Your task to perform on an android device: turn on location history Image 0: 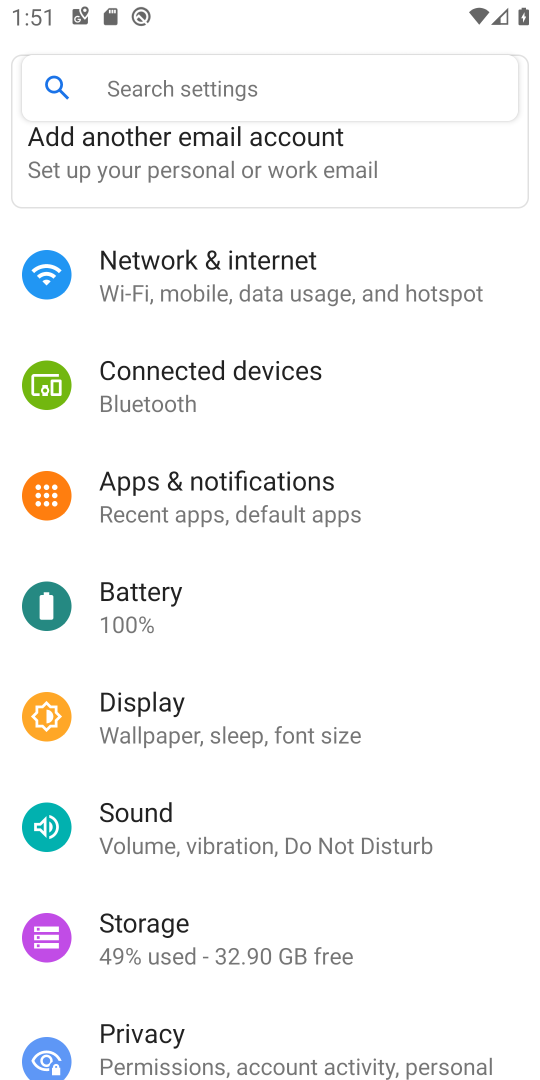
Step 0: drag from (252, 889) to (306, 422)
Your task to perform on an android device: turn on location history Image 1: 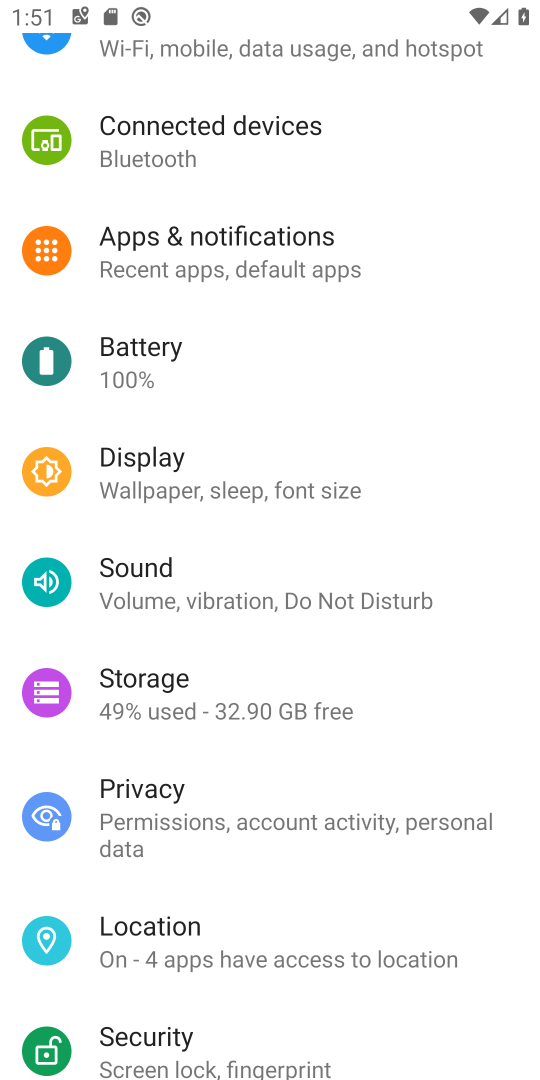
Step 1: click (198, 904)
Your task to perform on an android device: turn on location history Image 2: 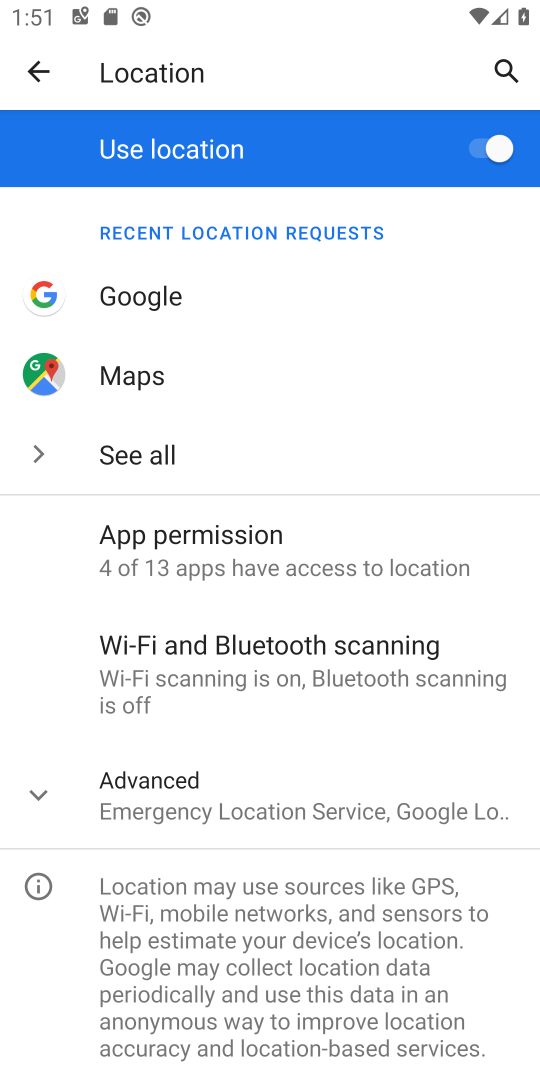
Step 2: click (226, 811)
Your task to perform on an android device: turn on location history Image 3: 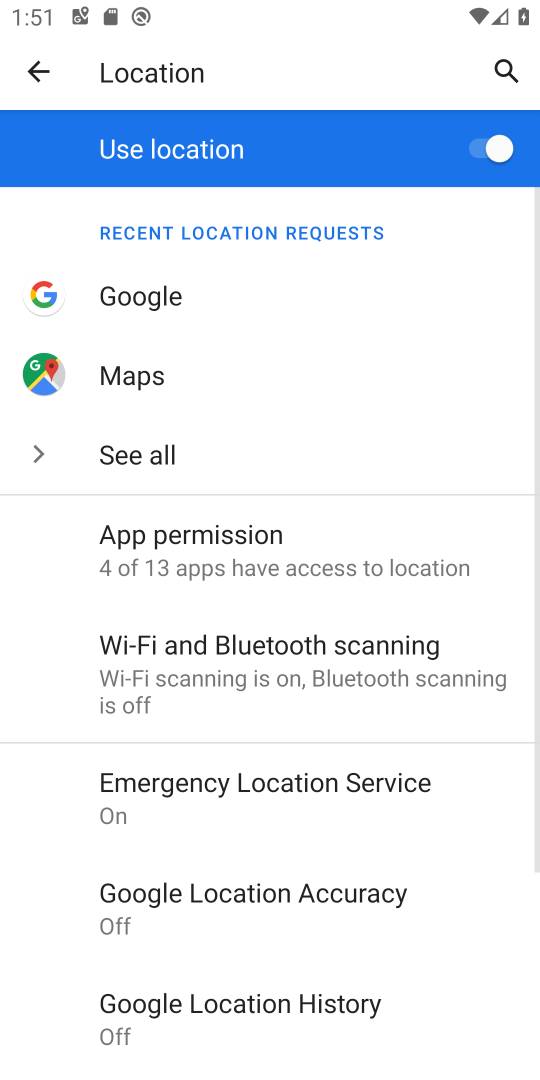
Step 3: click (336, 1005)
Your task to perform on an android device: turn on location history Image 4: 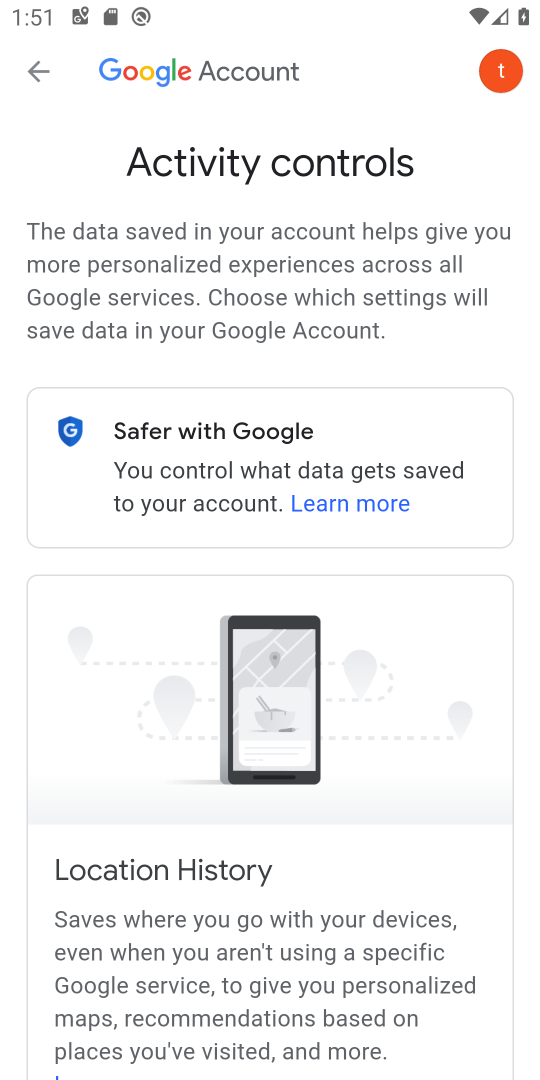
Step 4: task complete